Your task to perform on an android device: turn off translation in the chrome app Image 0: 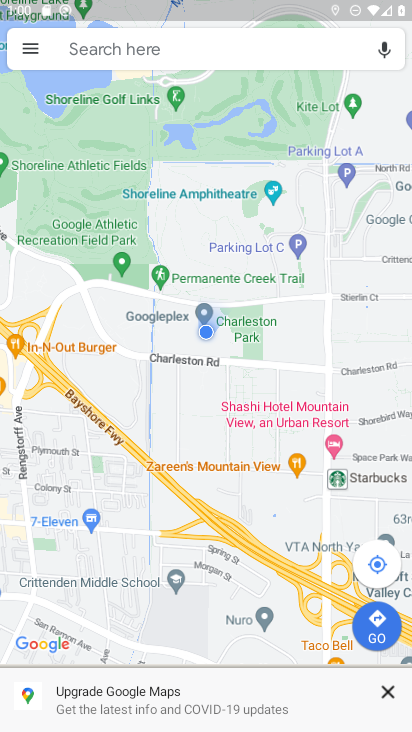
Step 0: press home button
Your task to perform on an android device: turn off translation in the chrome app Image 1: 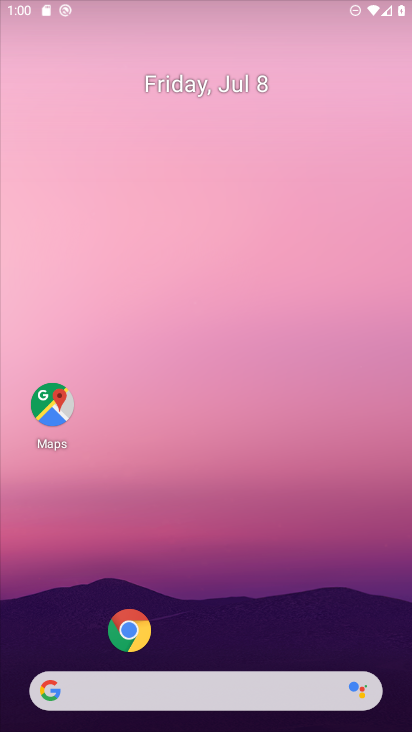
Step 1: drag from (266, 603) to (306, 100)
Your task to perform on an android device: turn off translation in the chrome app Image 2: 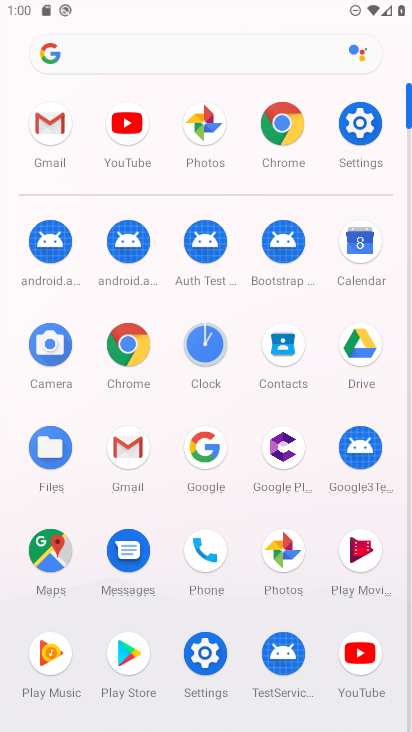
Step 2: click (131, 351)
Your task to perform on an android device: turn off translation in the chrome app Image 3: 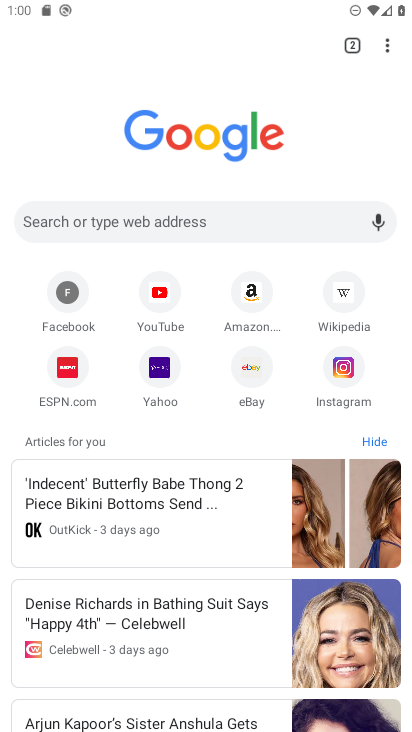
Step 3: drag from (382, 45) to (278, 386)
Your task to perform on an android device: turn off translation in the chrome app Image 4: 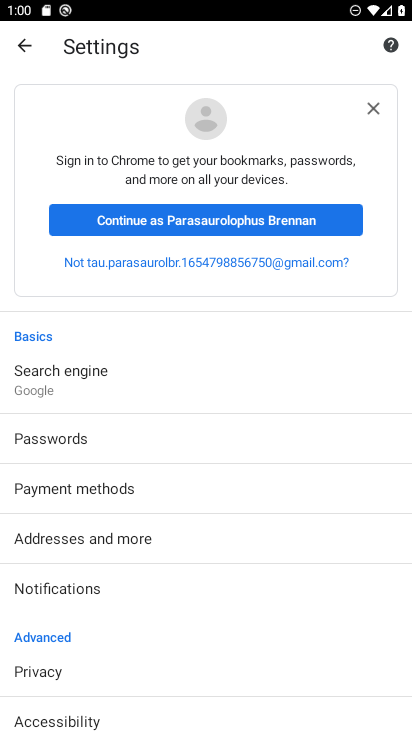
Step 4: drag from (134, 681) to (275, 349)
Your task to perform on an android device: turn off translation in the chrome app Image 5: 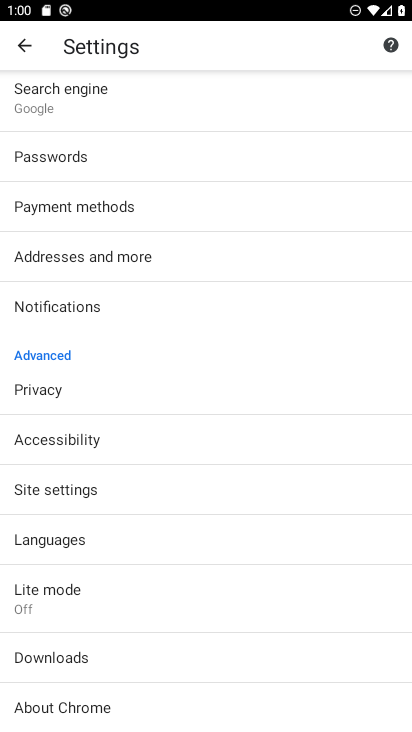
Step 5: click (242, 572)
Your task to perform on an android device: turn off translation in the chrome app Image 6: 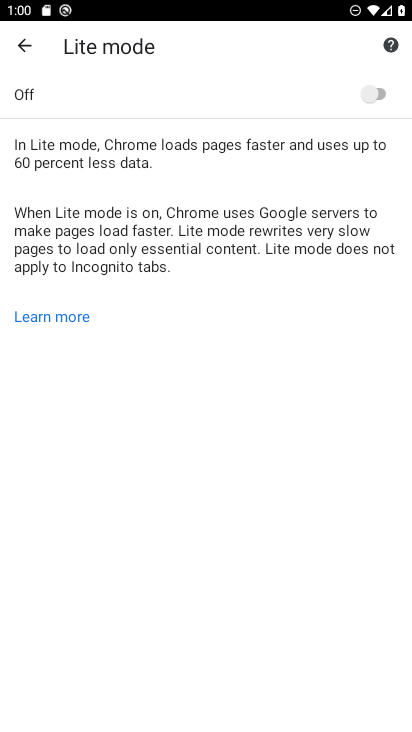
Step 6: press back button
Your task to perform on an android device: turn off translation in the chrome app Image 7: 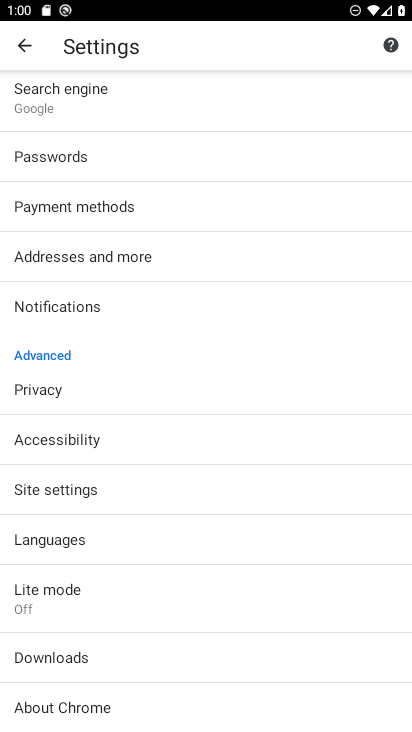
Step 7: click (79, 544)
Your task to perform on an android device: turn off translation in the chrome app Image 8: 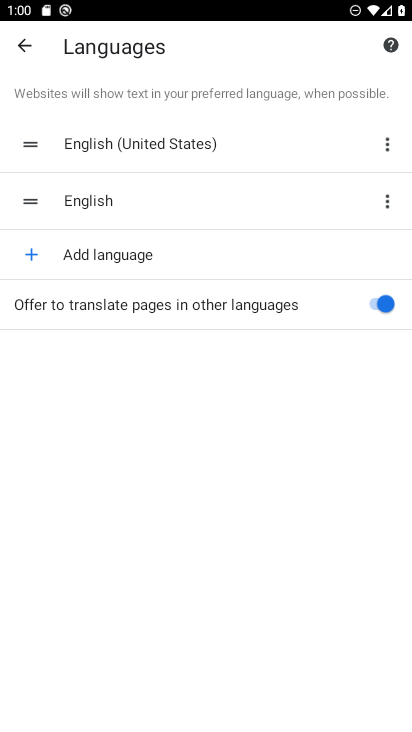
Step 8: click (377, 292)
Your task to perform on an android device: turn off translation in the chrome app Image 9: 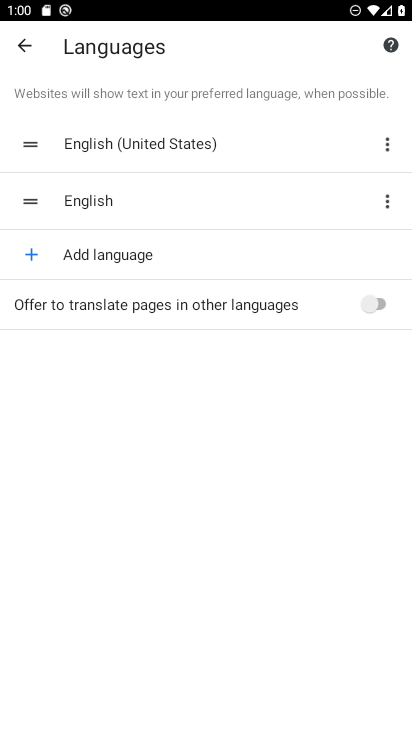
Step 9: task complete